Your task to perform on an android device: Go to sound settings Image 0: 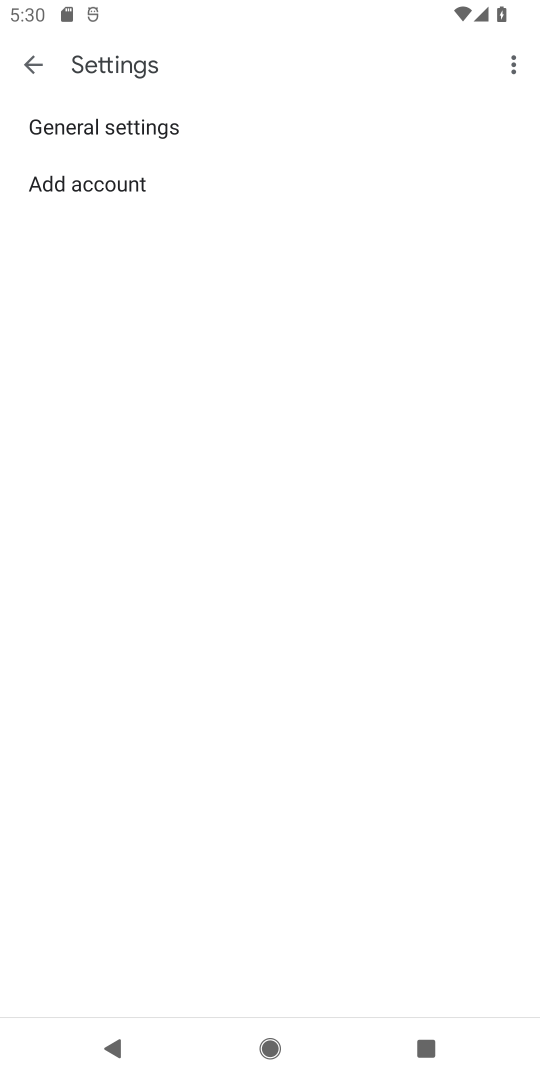
Step 0: press home button
Your task to perform on an android device: Go to sound settings Image 1: 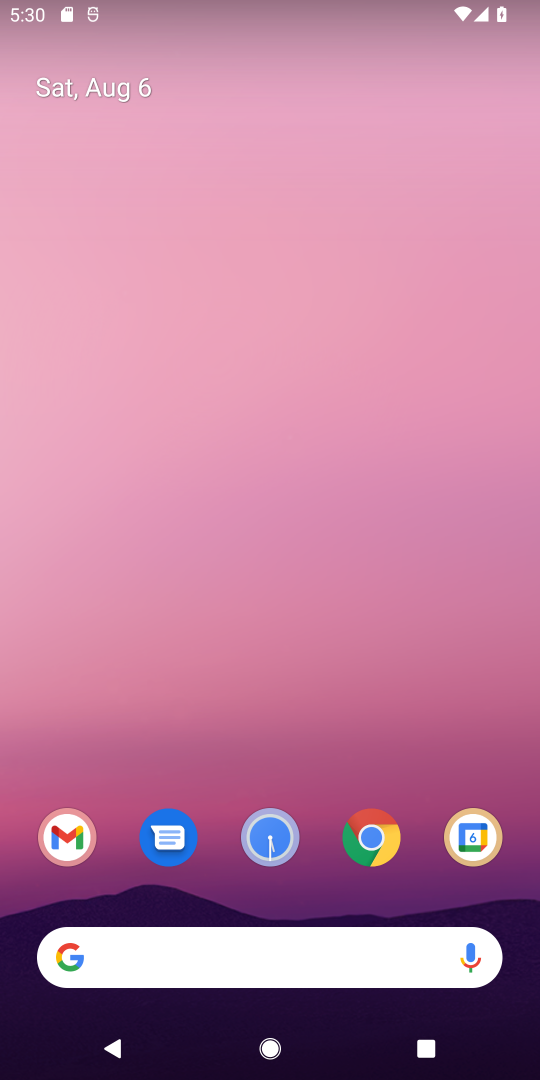
Step 1: drag from (301, 694) to (323, 156)
Your task to perform on an android device: Go to sound settings Image 2: 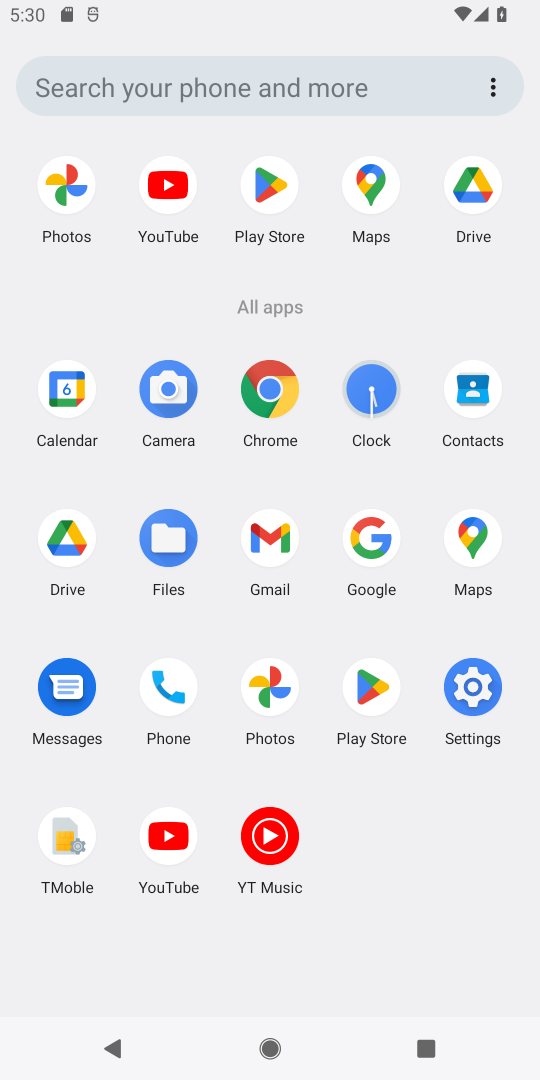
Step 2: click (472, 698)
Your task to perform on an android device: Go to sound settings Image 3: 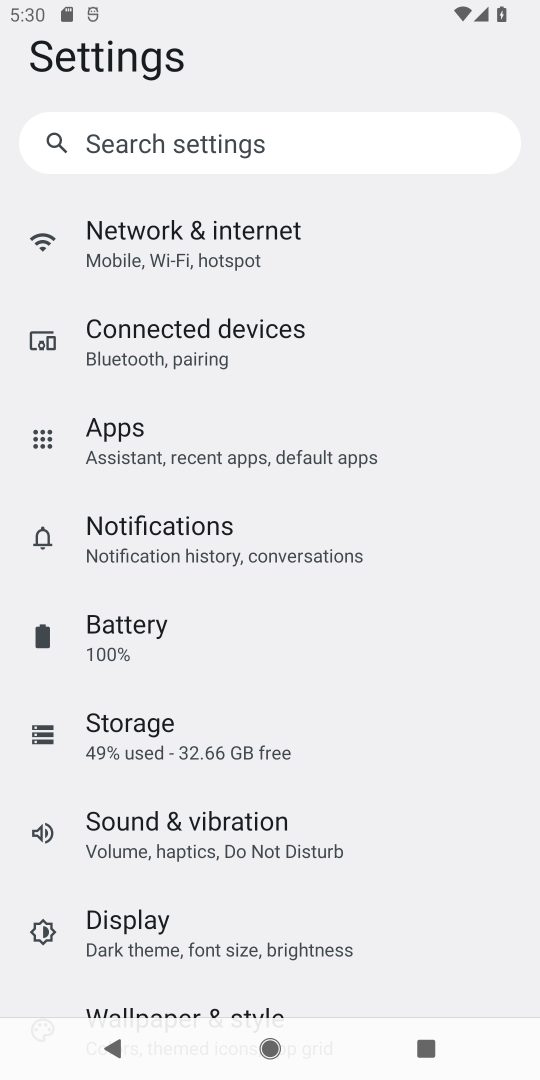
Step 3: click (194, 826)
Your task to perform on an android device: Go to sound settings Image 4: 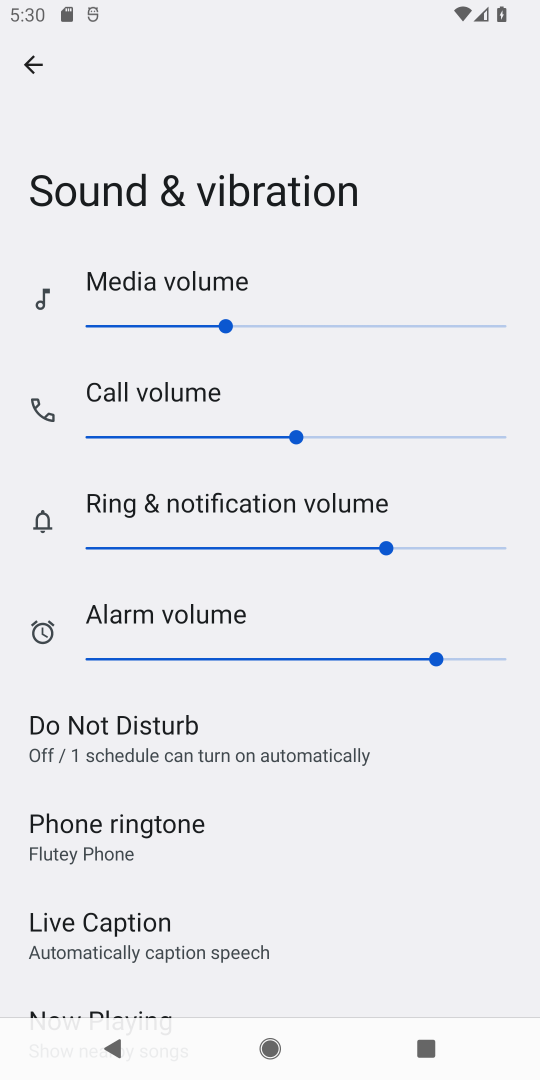
Step 4: task complete